Your task to perform on an android device: check out phone information Image 0: 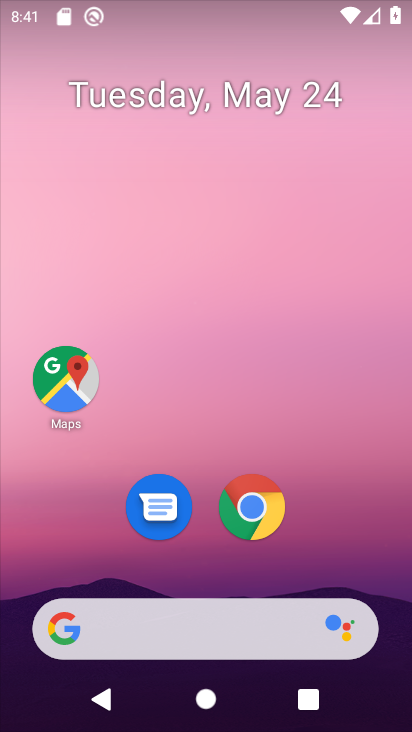
Step 0: drag from (224, 480) to (253, 0)
Your task to perform on an android device: check out phone information Image 1: 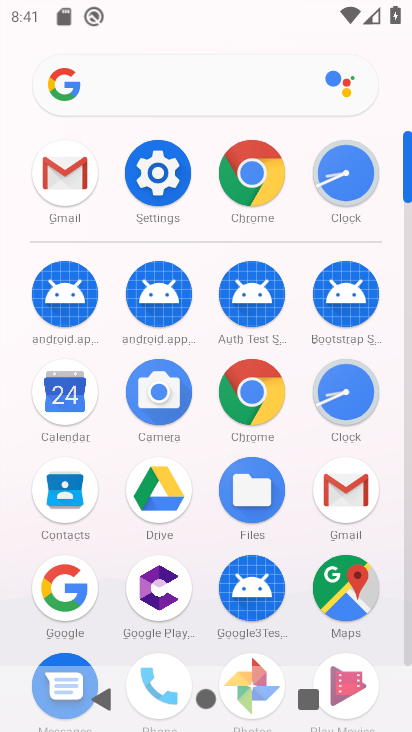
Step 1: click (126, 170)
Your task to perform on an android device: check out phone information Image 2: 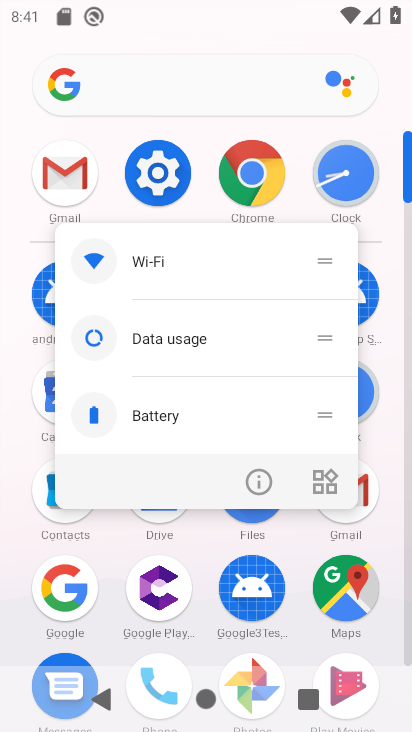
Step 2: click (254, 477)
Your task to perform on an android device: check out phone information Image 3: 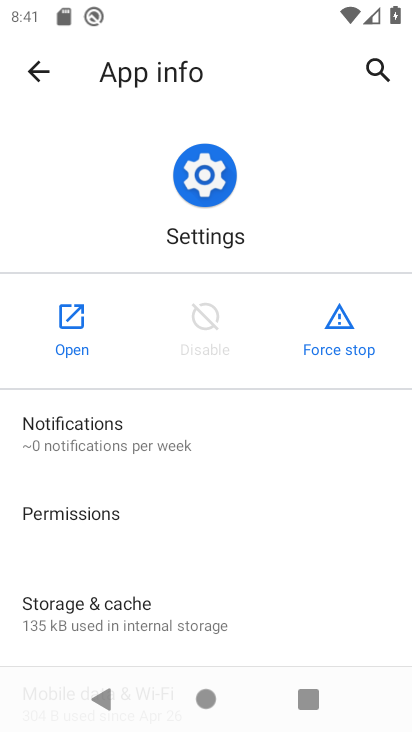
Step 3: click (40, 319)
Your task to perform on an android device: check out phone information Image 4: 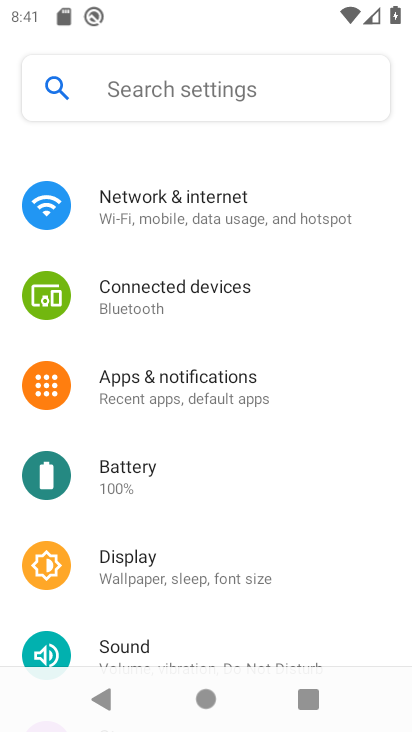
Step 4: drag from (192, 451) to (284, 5)
Your task to perform on an android device: check out phone information Image 5: 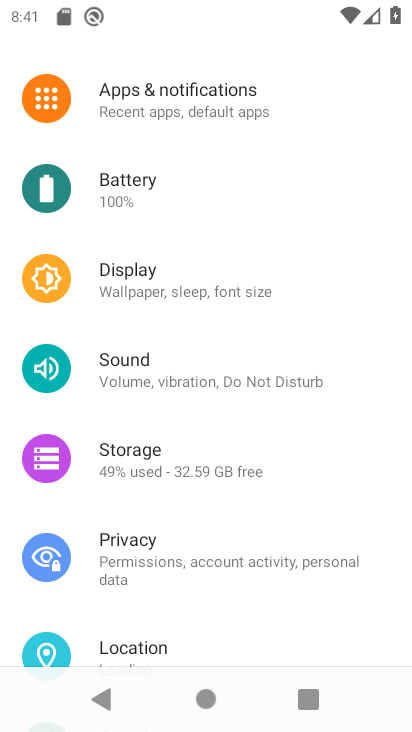
Step 5: drag from (192, 472) to (325, 67)
Your task to perform on an android device: check out phone information Image 6: 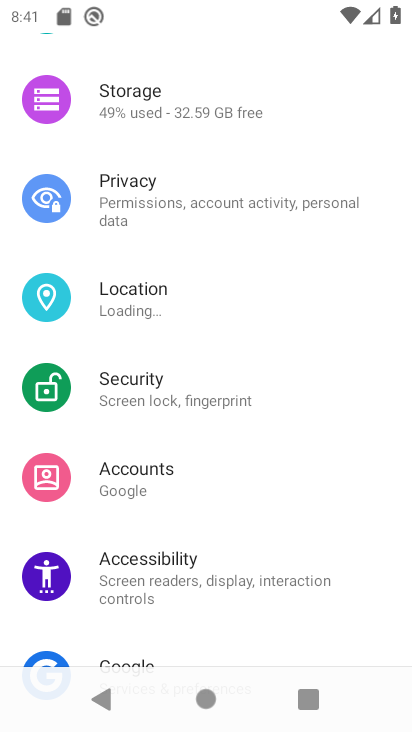
Step 6: drag from (190, 552) to (288, 80)
Your task to perform on an android device: check out phone information Image 7: 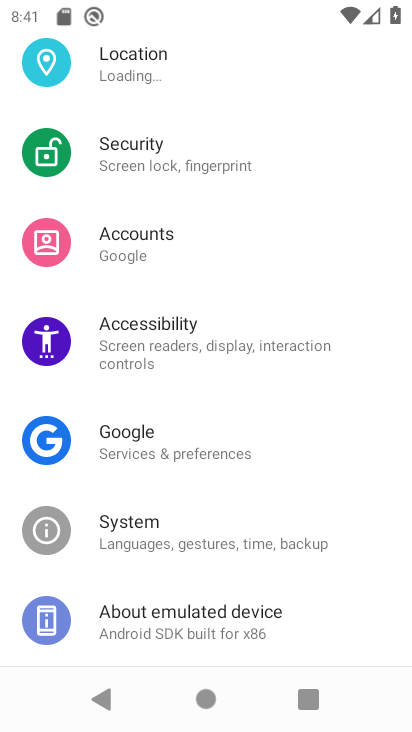
Step 7: drag from (179, 621) to (298, 104)
Your task to perform on an android device: check out phone information Image 8: 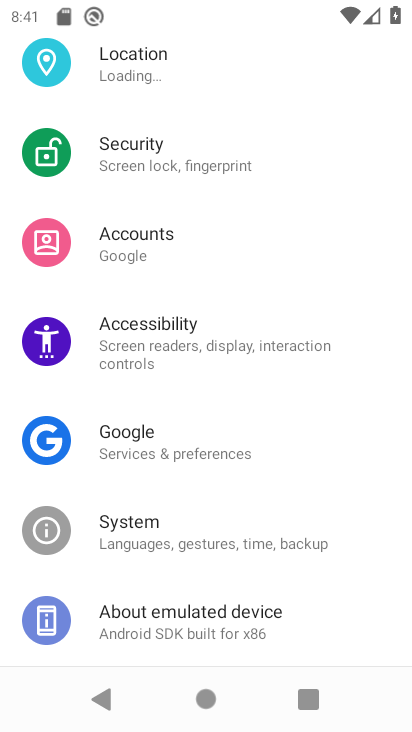
Step 8: drag from (174, 498) to (188, 212)
Your task to perform on an android device: check out phone information Image 9: 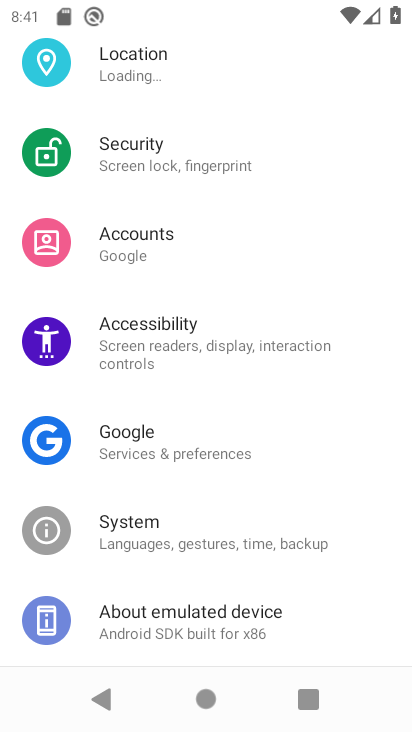
Step 9: drag from (164, 555) to (164, 62)
Your task to perform on an android device: check out phone information Image 10: 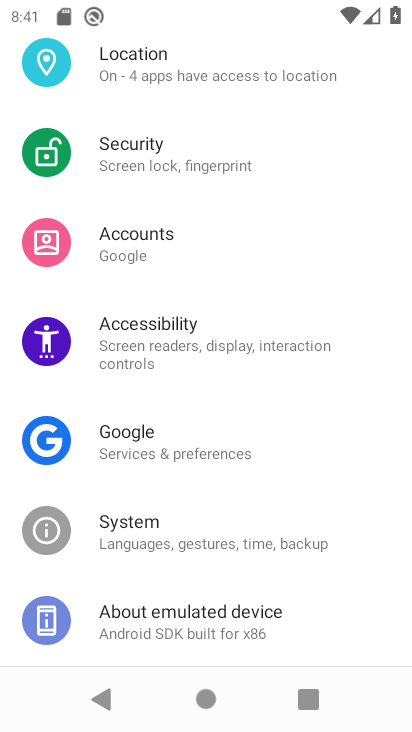
Step 10: click (197, 615)
Your task to perform on an android device: check out phone information Image 11: 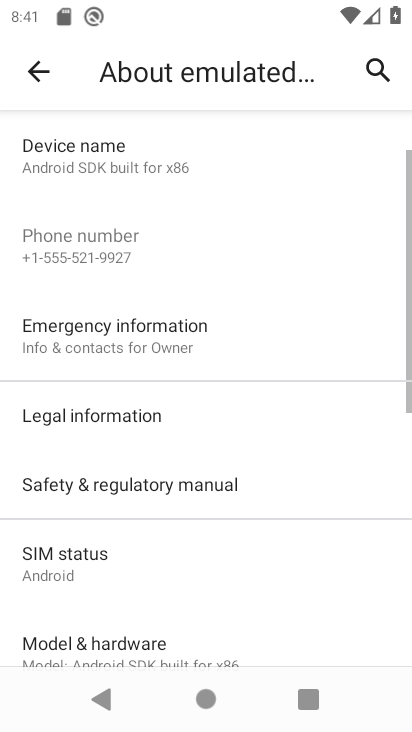
Step 11: task complete